Your task to perform on an android device: Open Yahoo.com Image 0: 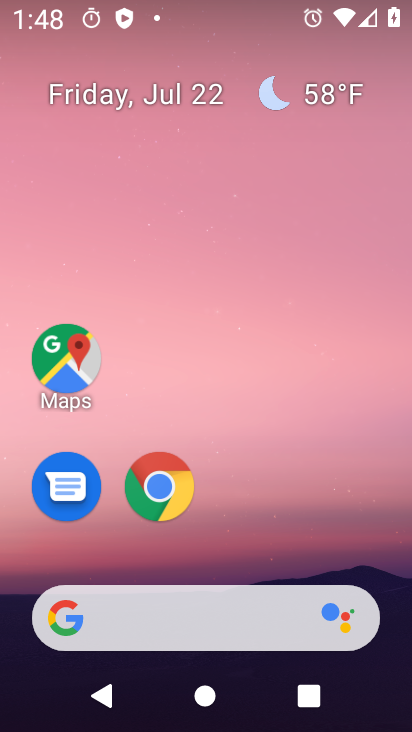
Step 0: drag from (387, 566) to (390, 195)
Your task to perform on an android device: Open Yahoo.com Image 1: 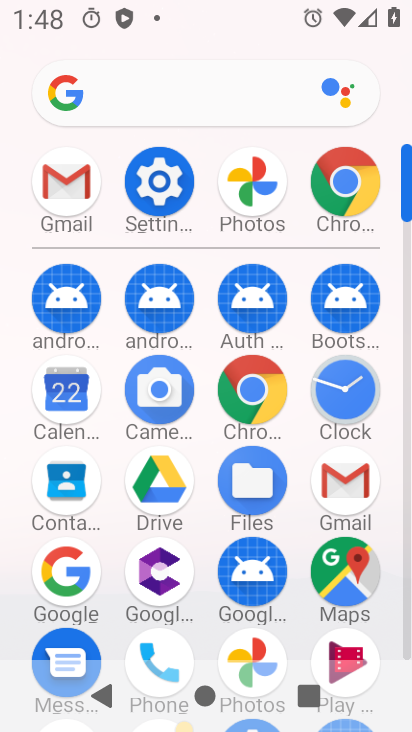
Step 1: click (272, 385)
Your task to perform on an android device: Open Yahoo.com Image 2: 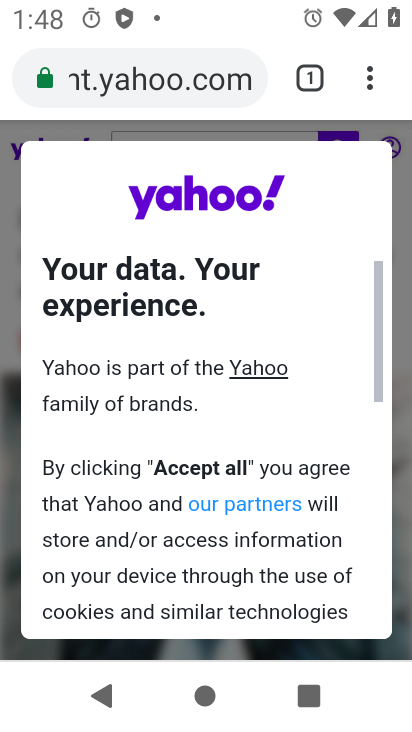
Step 2: click (236, 83)
Your task to perform on an android device: Open Yahoo.com Image 3: 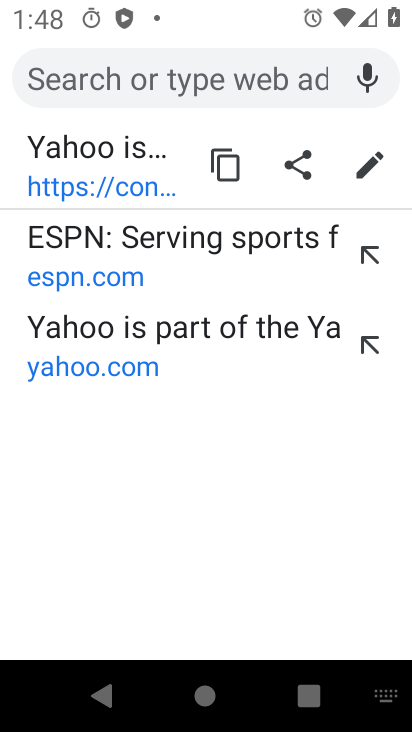
Step 3: type "yahoo.com"
Your task to perform on an android device: Open Yahoo.com Image 4: 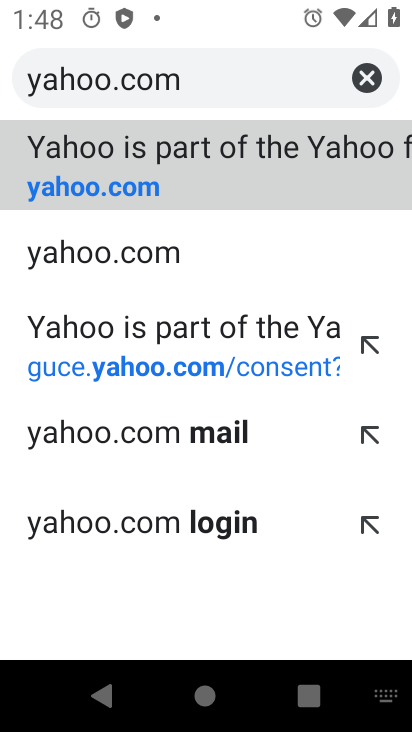
Step 4: click (291, 182)
Your task to perform on an android device: Open Yahoo.com Image 5: 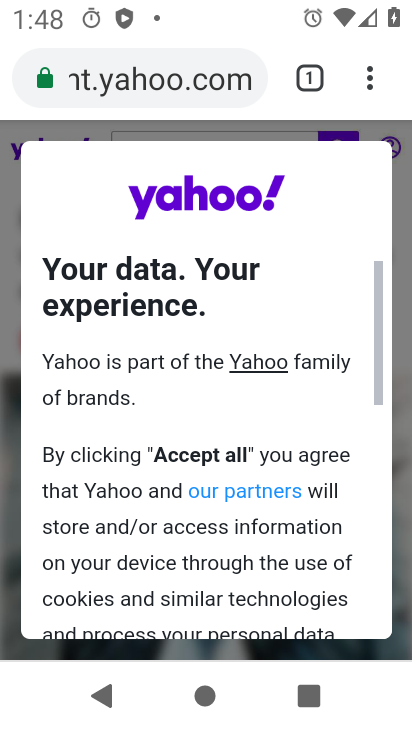
Step 5: task complete